Your task to perform on an android device: Turn off the flashlight Image 0: 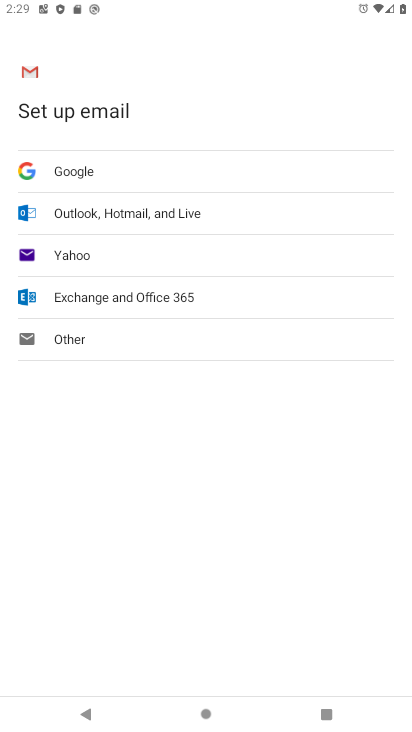
Step 0: press home button
Your task to perform on an android device: Turn off the flashlight Image 1: 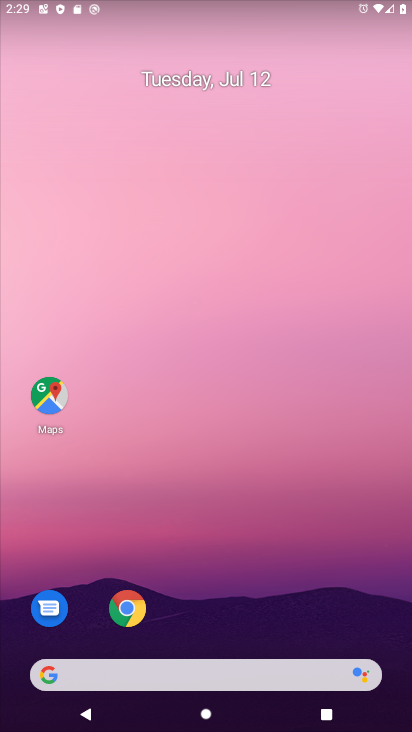
Step 1: drag from (269, 599) to (188, 38)
Your task to perform on an android device: Turn off the flashlight Image 2: 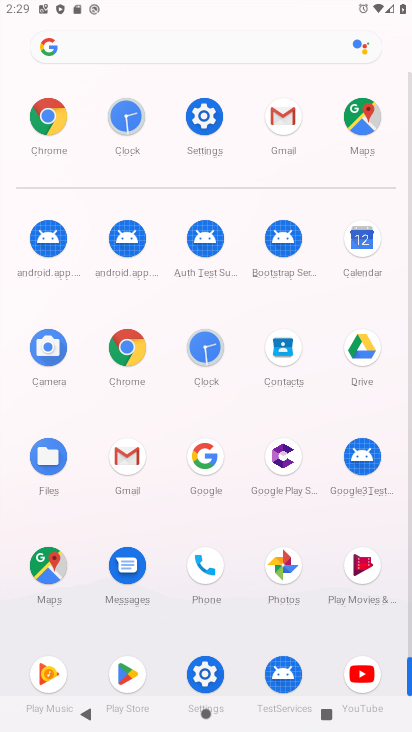
Step 2: click (212, 115)
Your task to perform on an android device: Turn off the flashlight Image 3: 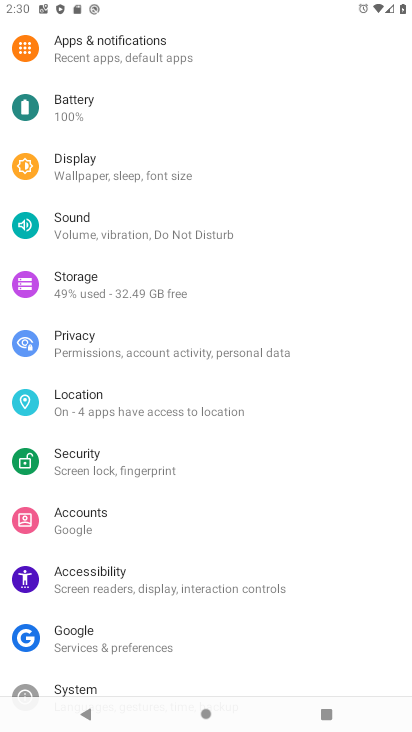
Step 3: click (118, 167)
Your task to perform on an android device: Turn off the flashlight Image 4: 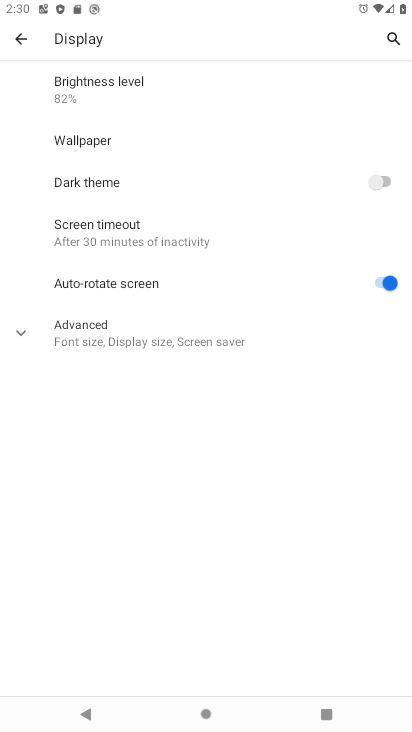
Step 4: task complete